Your task to perform on an android device: Open the calendar and show me this week's events Image 0: 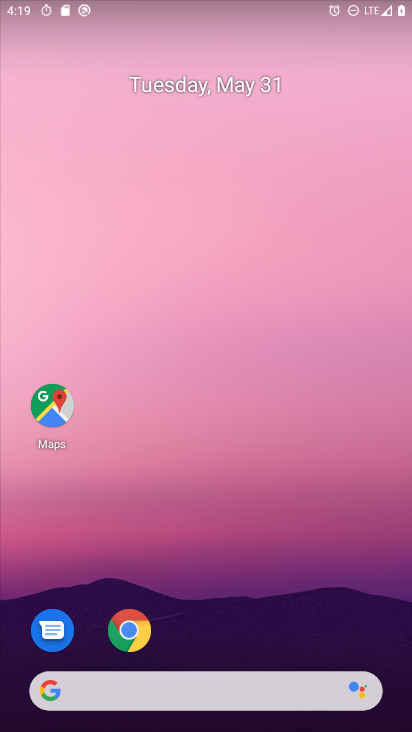
Step 0: drag from (240, 707) to (296, 128)
Your task to perform on an android device: Open the calendar and show me this week's events Image 1: 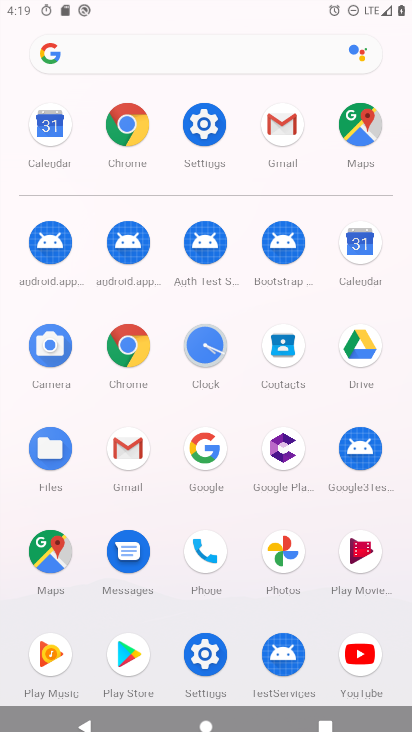
Step 1: click (370, 258)
Your task to perform on an android device: Open the calendar and show me this week's events Image 2: 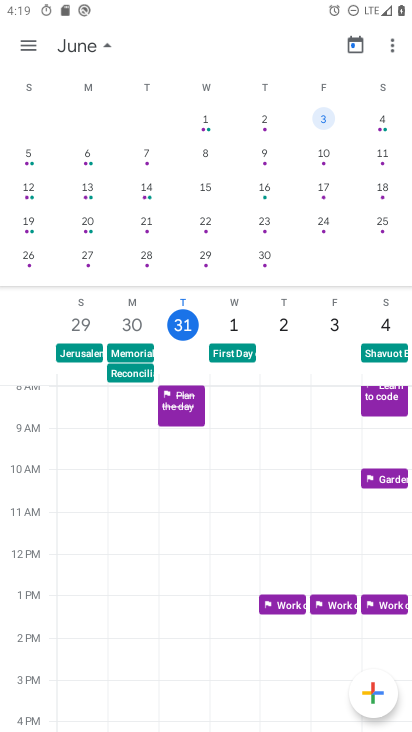
Step 2: click (107, 48)
Your task to perform on an android device: Open the calendar and show me this week's events Image 3: 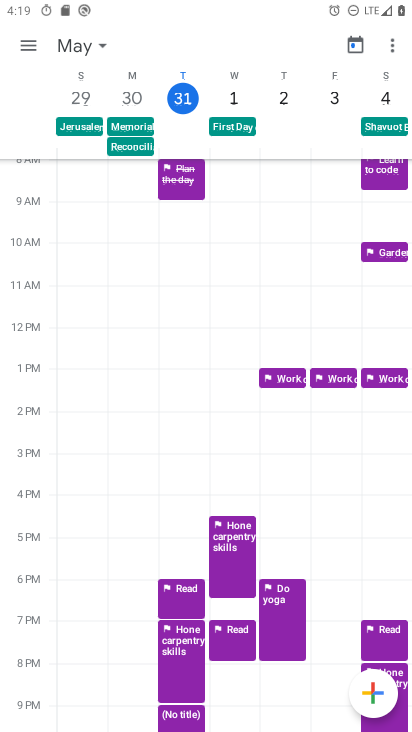
Step 3: click (100, 40)
Your task to perform on an android device: Open the calendar and show me this week's events Image 4: 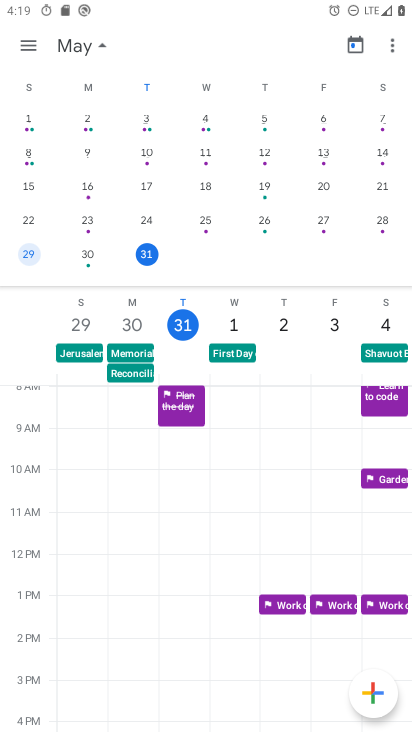
Step 4: drag from (335, 188) to (5, 210)
Your task to perform on an android device: Open the calendar and show me this week's events Image 5: 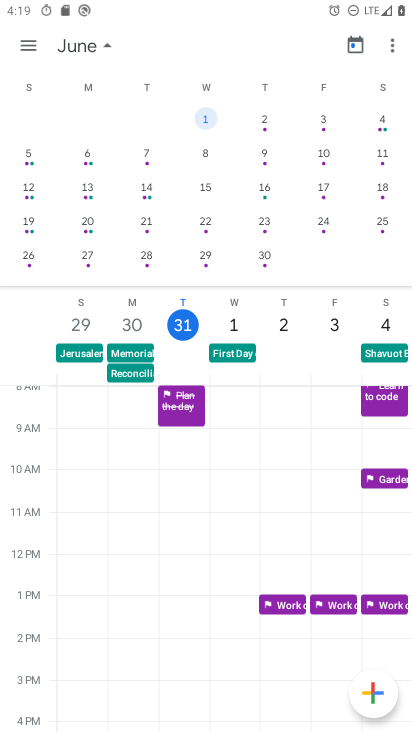
Step 5: click (327, 121)
Your task to perform on an android device: Open the calendar and show me this week's events Image 6: 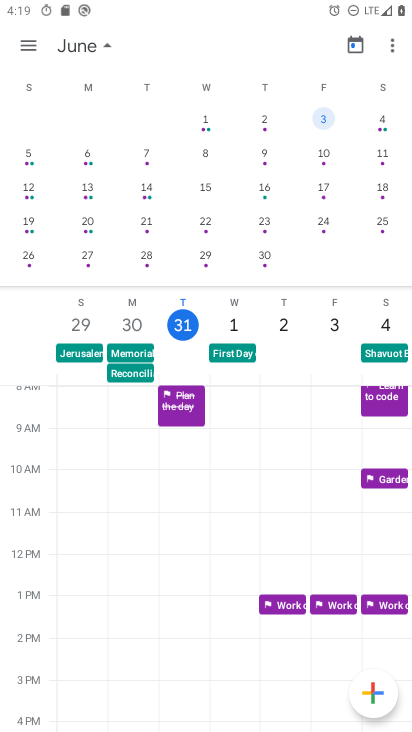
Step 6: task complete